Your task to perform on an android device: Play the last video I watched on Youtube Image 0: 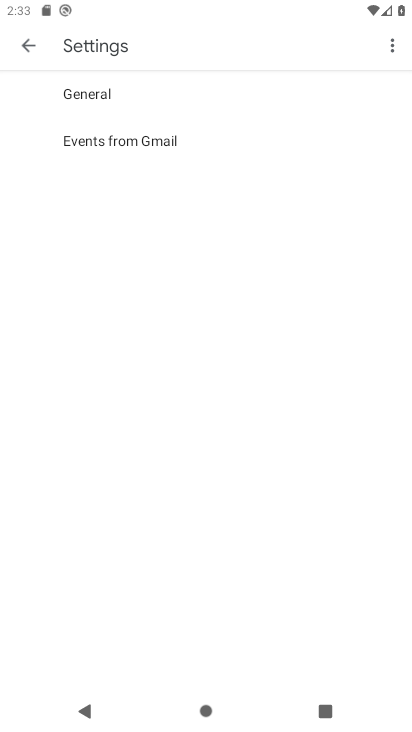
Step 0: press home button
Your task to perform on an android device: Play the last video I watched on Youtube Image 1: 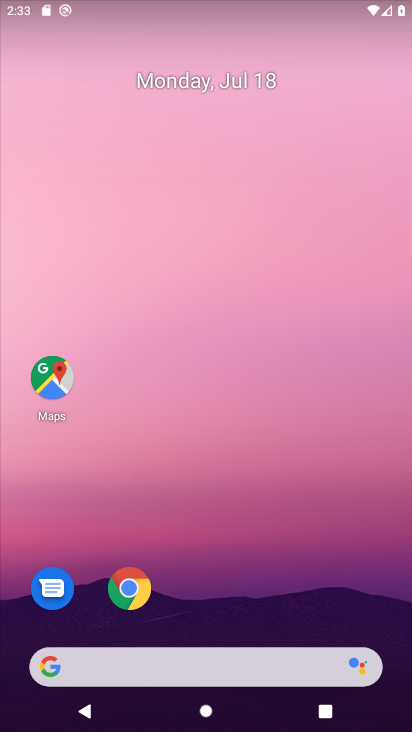
Step 1: drag from (323, 589) to (314, 28)
Your task to perform on an android device: Play the last video I watched on Youtube Image 2: 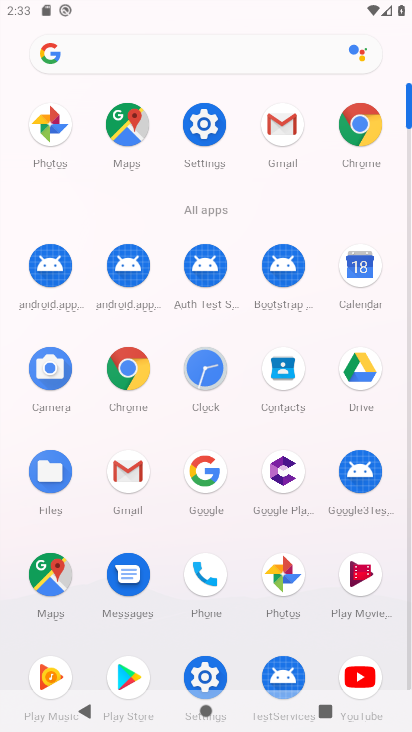
Step 2: click (350, 665)
Your task to perform on an android device: Play the last video I watched on Youtube Image 3: 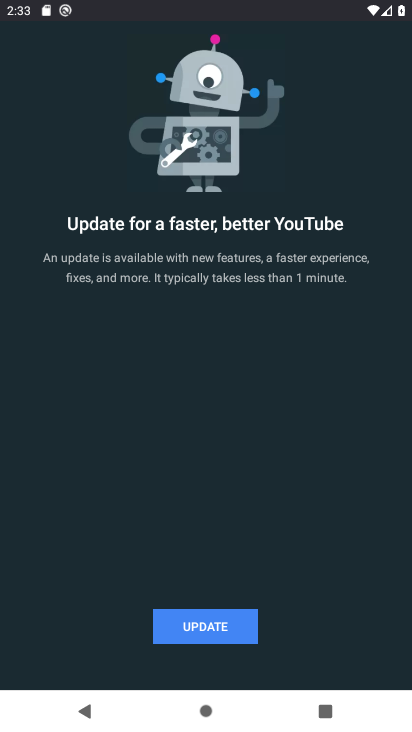
Step 3: click (230, 630)
Your task to perform on an android device: Play the last video I watched on Youtube Image 4: 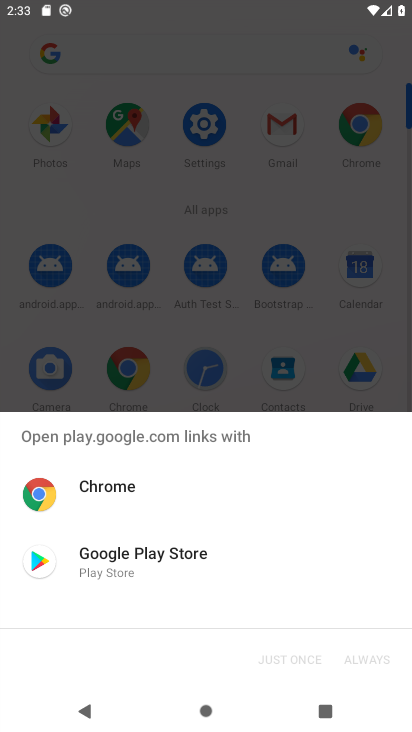
Step 4: click (156, 566)
Your task to perform on an android device: Play the last video I watched on Youtube Image 5: 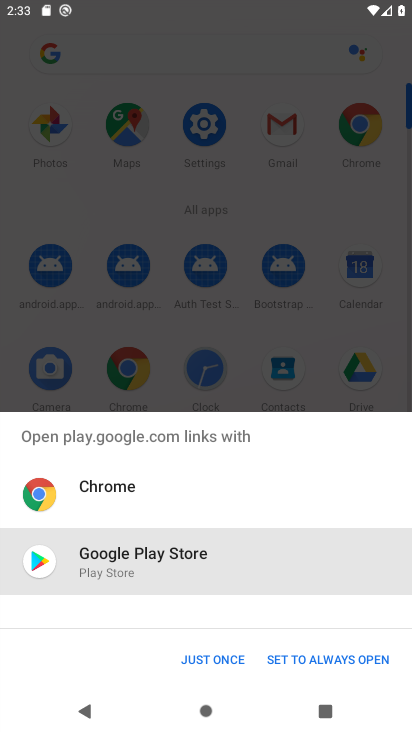
Step 5: click (205, 663)
Your task to perform on an android device: Play the last video I watched on Youtube Image 6: 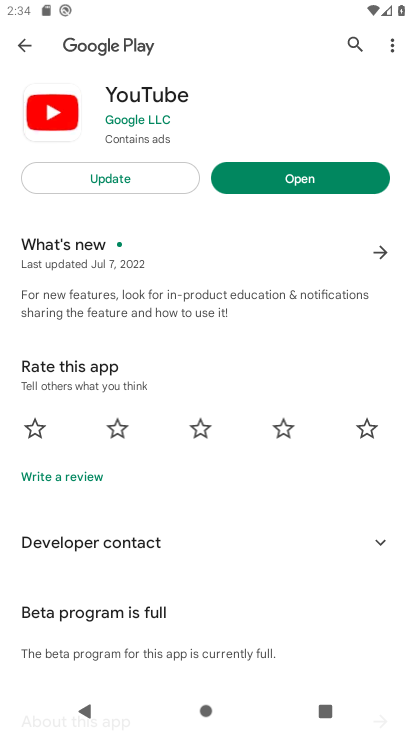
Step 6: click (147, 174)
Your task to perform on an android device: Play the last video I watched on Youtube Image 7: 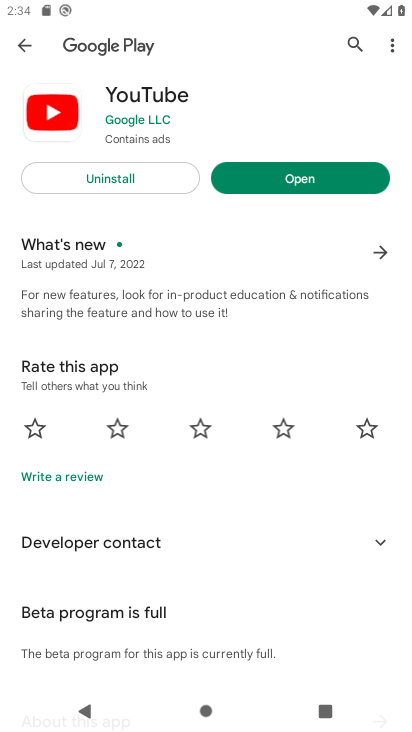
Step 7: click (289, 172)
Your task to perform on an android device: Play the last video I watched on Youtube Image 8: 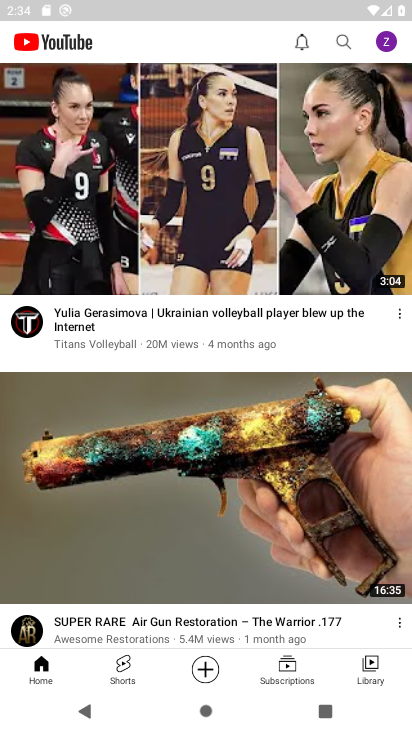
Step 8: click (388, 662)
Your task to perform on an android device: Play the last video I watched on Youtube Image 9: 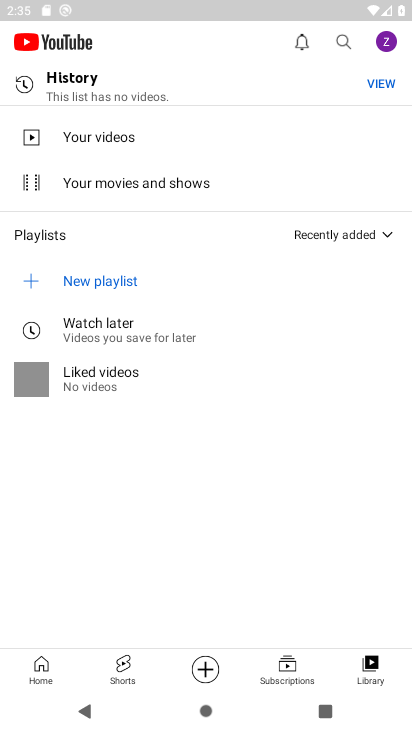
Step 9: click (106, 91)
Your task to perform on an android device: Play the last video I watched on Youtube Image 10: 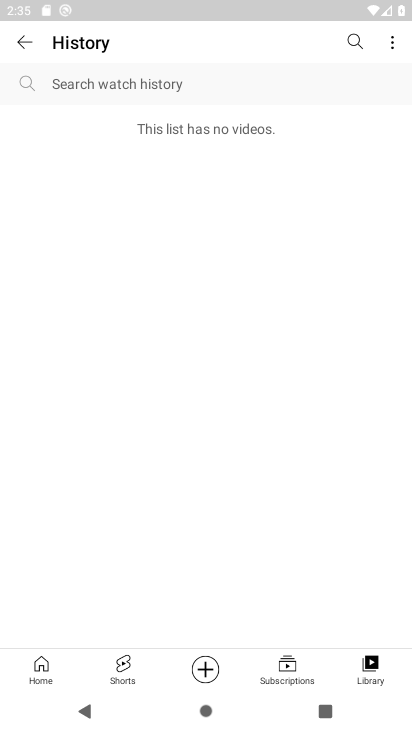
Step 10: task complete